Your task to perform on an android device: Clear the cart on amazon.com. Add logitech g pro to the cart on amazon.com, then select checkout. Image 0: 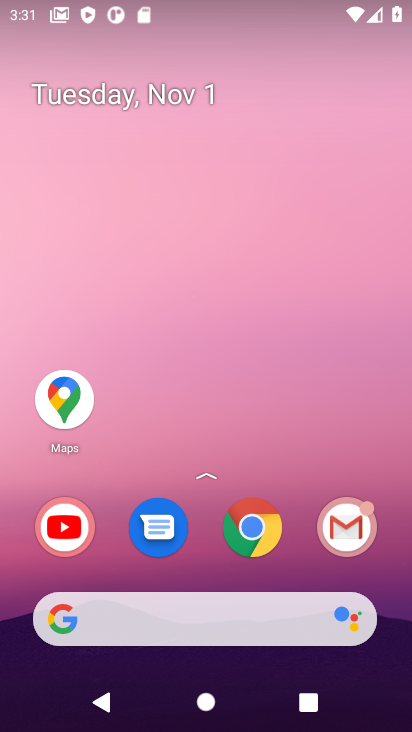
Step 0: click (222, 612)
Your task to perform on an android device: Clear the cart on amazon.com. Add logitech g pro to the cart on amazon.com, then select checkout. Image 1: 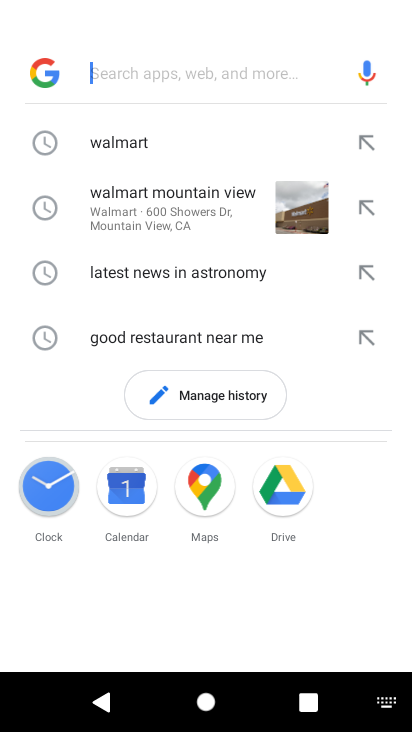
Step 1: type "amazon.com"
Your task to perform on an android device: Clear the cart on amazon.com. Add logitech g pro to the cart on amazon.com, then select checkout. Image 2: 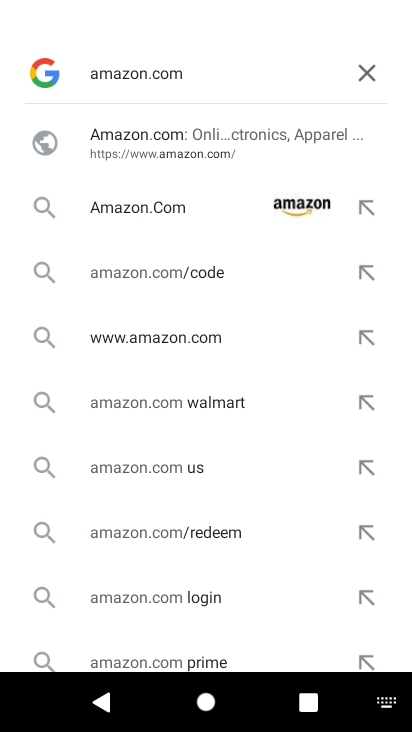
Step 2: click (167, 210)
Your task to perform on an android device: Clear the cart on amazon.com. Add logitech g pro to the cart on amazon.com, then select checkout. Image 3: 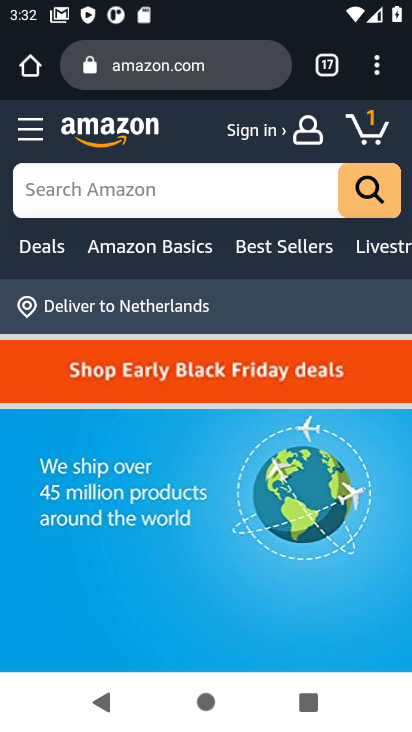
Step 3: click (159, 176)
Your task to perform on an android device: Clear the cart on amazon.com. Add logitech g pro to the cart on amazon.com, then select checkout. Image 4: 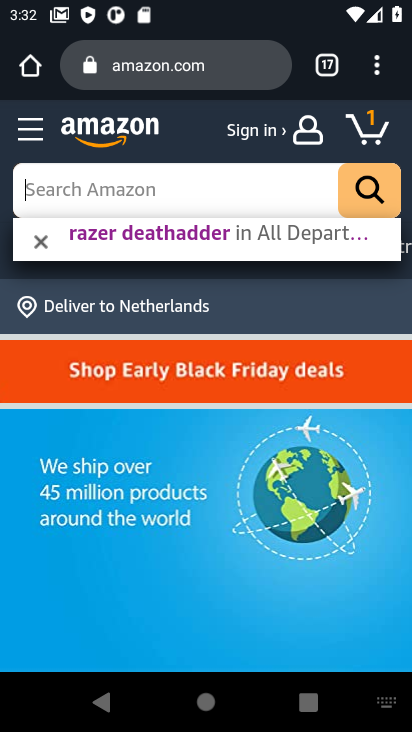
Step 4: type "logitech g pro"
Your task to perform on an android device: Clear the cart on amazon.com. Add logitech g pro to the cart on amazon.com, then select checkout. Image 5: 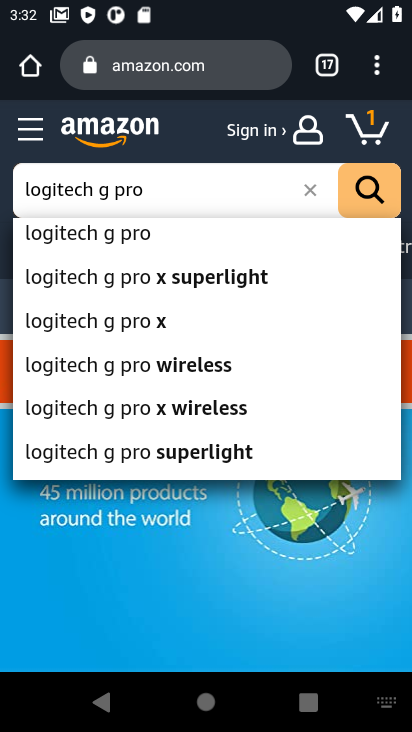
Step 5: click (135, 225)
Your task to perform on an android device: Clear the cart on amazon.com. Add logitech g pro to the cart on amazon.com, then select checkout. Image 6: 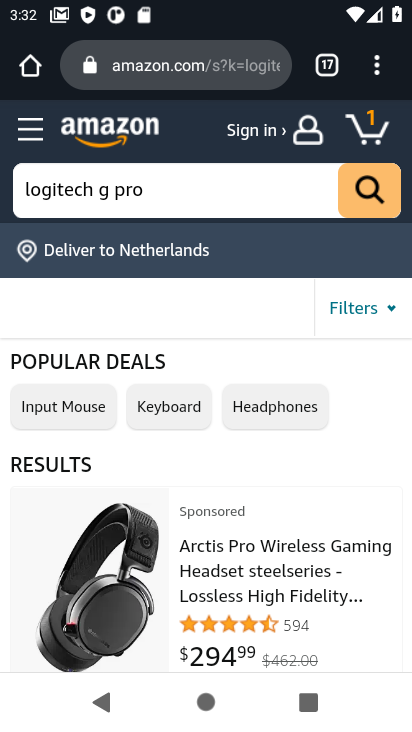
Step 6: drag from (235, 556) to (272, 396)
Your task to perform on an android device: Clear the cart on amazon.com. Add logitech g pro to the cart on amazon.com, then select checkout. Image 7: 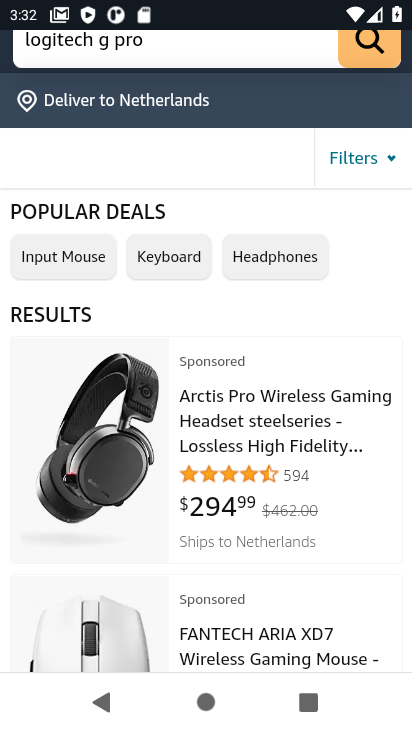
Step 7: click (254, 415)
Your task to perform on an android device: Clear the cart on amazon.com. Add logitech g pro to the cart on amazon.com, then select checkout. Image 8: 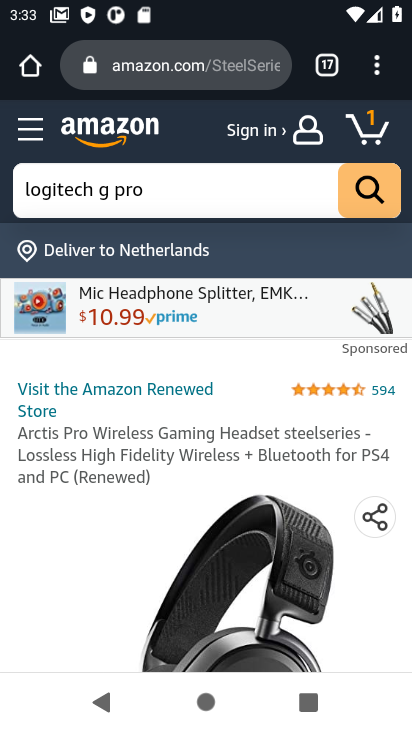
Step 8: drag from (285, 563) to (300, 403)
Your task to perform on an android device: Clear the cart on amazon.com. Add logitech g pro to the cart on amazon.com, then select checkout. Image 9: 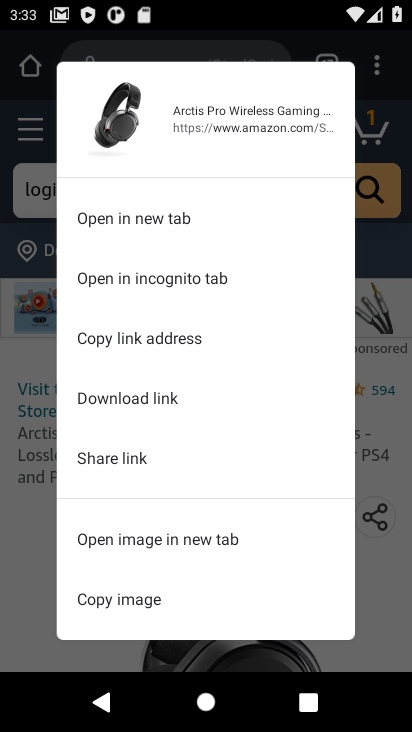
Step 9: click (359, 638)
Your task to perform on an android device: Clear the cart on amazon.com. Add logitech g pro to the cart on amazon.com, then select checkout. Image 10: 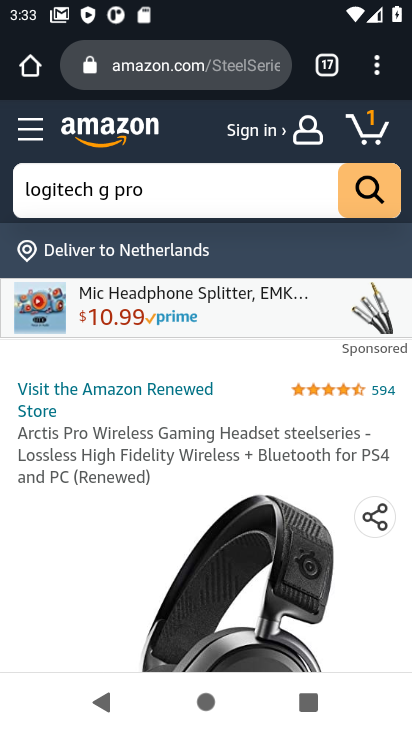
Step 10: drag from (350, 590) to (321, 391)
Your task to perform on an android device: Clear the cart on amazon.com. Add logitech g pro to the cart on amazon.com, then select checkout. Image 11: 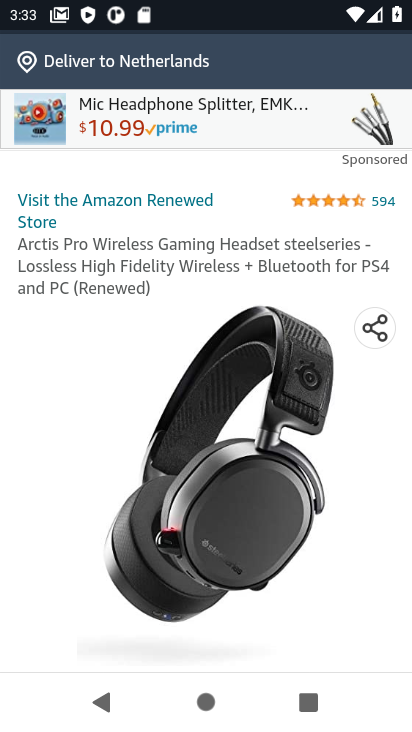
Step 11: drag from (229, 525) to (237, 490)
Your task to perform on an android device: Clear the cart on amazon.com. Add logitech g pro to the cart on amazon.com, then select checkout. Image 12: 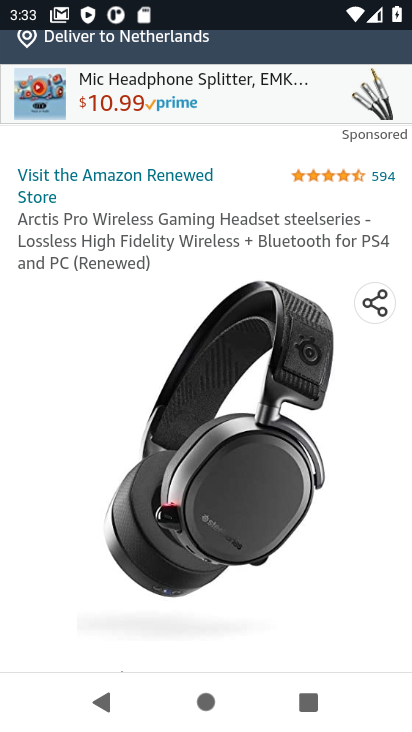
Step 12: click (328, 539)
Your task to perform on an android device: Clear the cart on amazon.com. Add logitech g pro to the cart on amazon.com, then select checkout. Image 13: 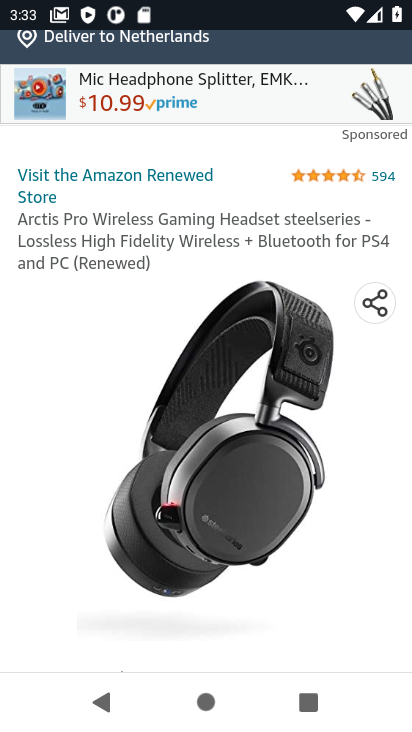
Step 13: drag from (328, 539) to (334, 402)
Your task to perform on an android device: Clear the cart on amazon.com. Add logitech g pro to the cart on amazon.com, then select checkout. Image 14: 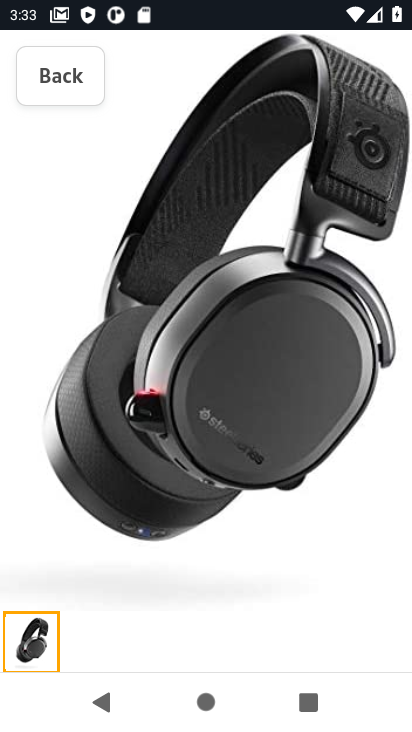
Step 14: drag from (200, 538) to (207, 411)
Your task to perform on an android device: Clear the cart on amazon.com. Add logitech g pro to the cart on amazon.com, then select checkout. Image 15: 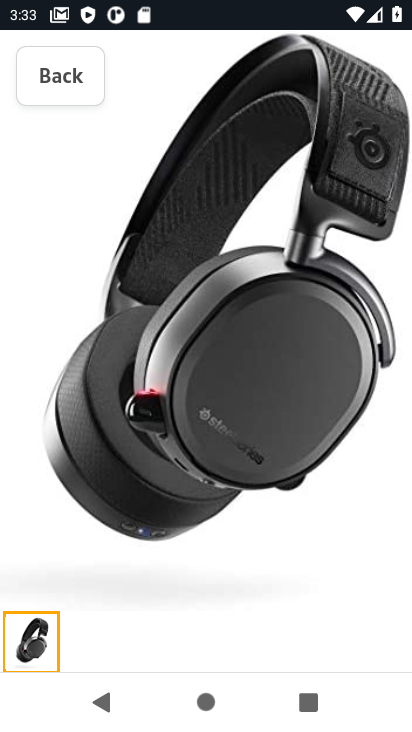
Step 15: click (69, 66)
Your task to perform on an android device: Clear the cart on amazon.com. Add logitech g pro to the cart on amazon.com, then select checkout. Image 16: 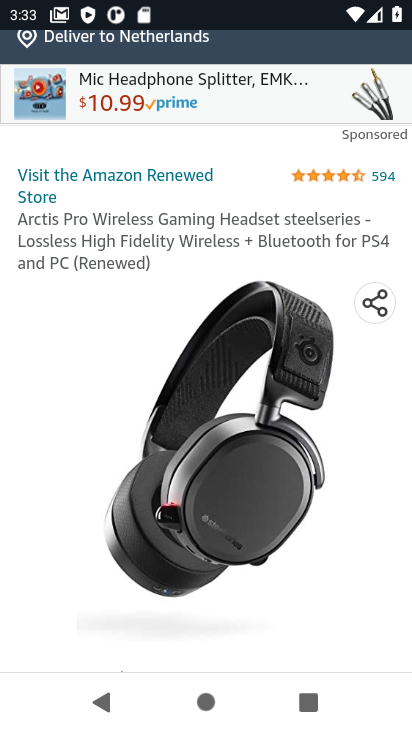
Step 16: drag from (194, 442) to (224, 259)
Your task to perform on an android device: Clear the cart on amazon.com. Add logitech g pro to the cart on amazon.com, then select checkout. Image 17: 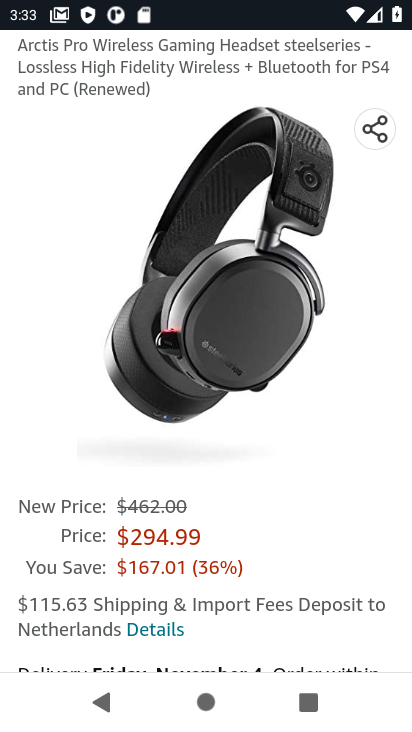
Step 17: drag from (270, 614) to (273, 475)
Your task to perform on an android device: Clear the cart on amazon.com. Add logitech g pro to the cart on amazon.com, then select checkout. Image 18: 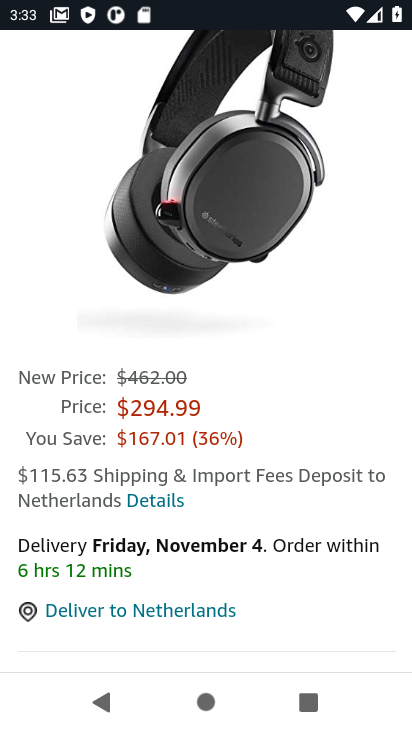
Step 18: drag from (229, 561) to (252, 422)
Your task to perform on an android device: Clear the cart on amazon.com. Add logitech g pro to the cart on amazon.com, then select checkout. Image 19: 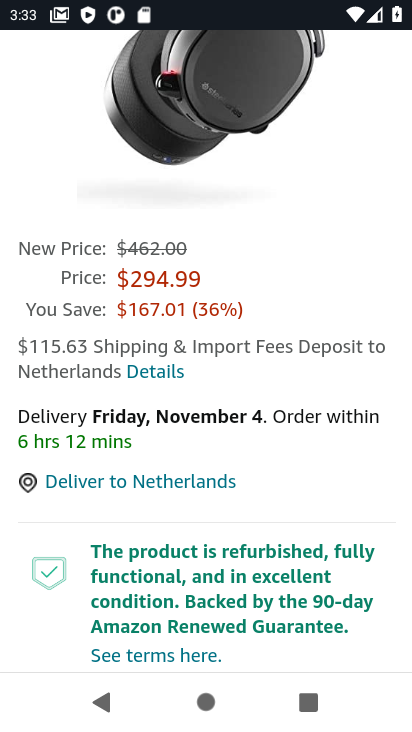
Step 19: drag from (197, 499) to (205, 383)
Your task to perform on an android device: Clear the cart on amazon.com. Add logitech g pro to the cart on amazon.com, then select checkout. Image 20: 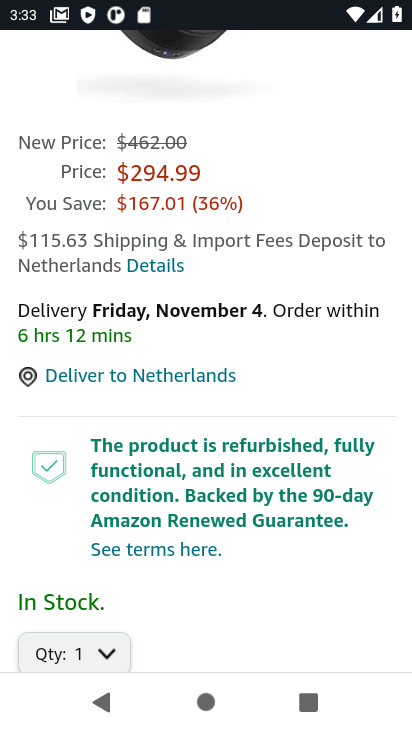
Step 20: drag from (198, 632) to (228, 451)
Your task to perform on an android device: Clear the cart on amazon.com. Add logitech g pro to the cart on amazon.com, then select checkout. Image 21: 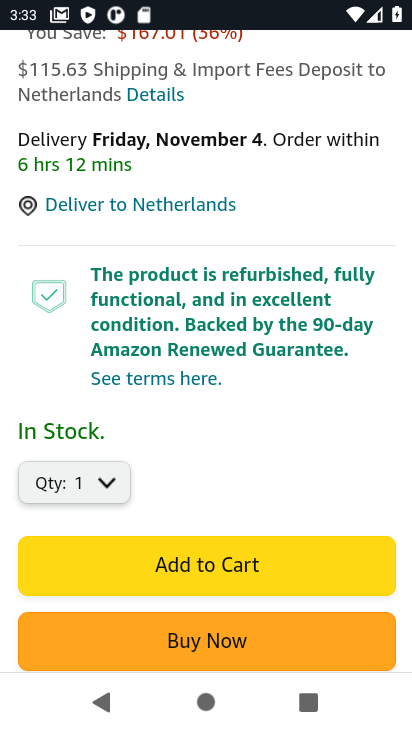
Step 21: click (196, 573)
Your task to perform on an android device: Clear the cart on amazon.com. Add logitech g pro to the cart on amazon.com, then select checkout. Image 22: 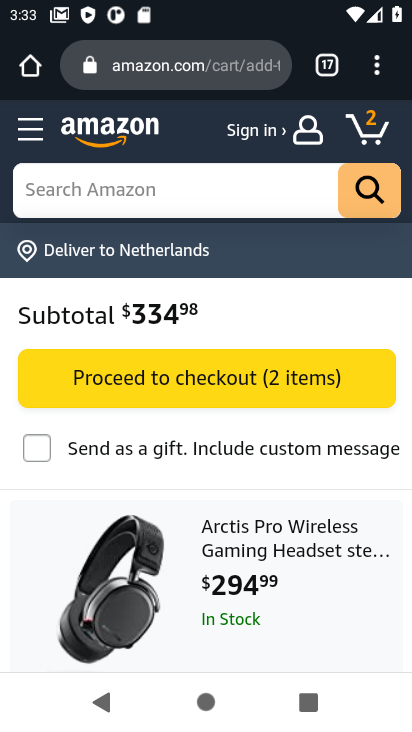
Step 22: click (187, 373)
Your task to perform on an android device: Clear the cart on amazon.com. Add logitech g pro to the cart on amazon.com, then select checkout. Image 23: 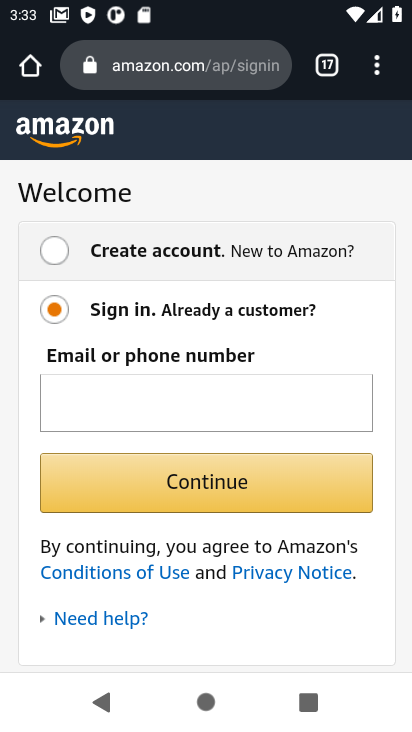
Step 23: task complete